Your task to perform on an android device: Is it going to rain today? Image 0: 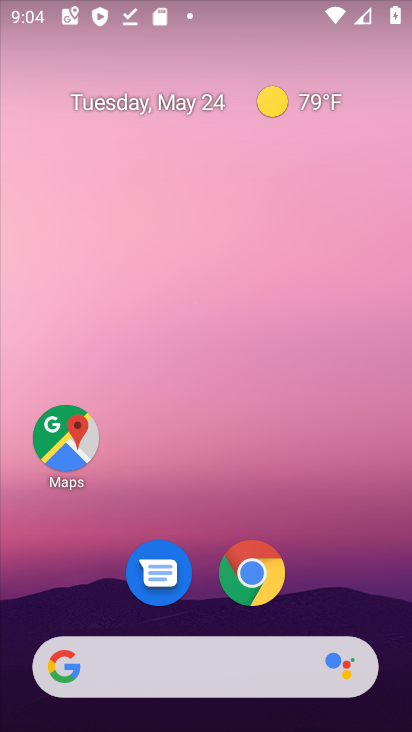
Step 0: drag from (26, 189) to (411, 511)
Your task to perform on an android device: Is it going to rain today? Image 1: 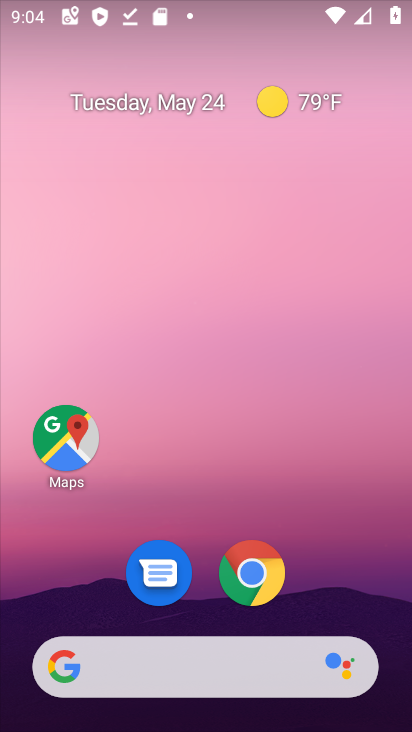
Step 1: drag from (44, 316) to (392, 374)
Your task to perform on an android device: Is it going to rain today? Image 2: 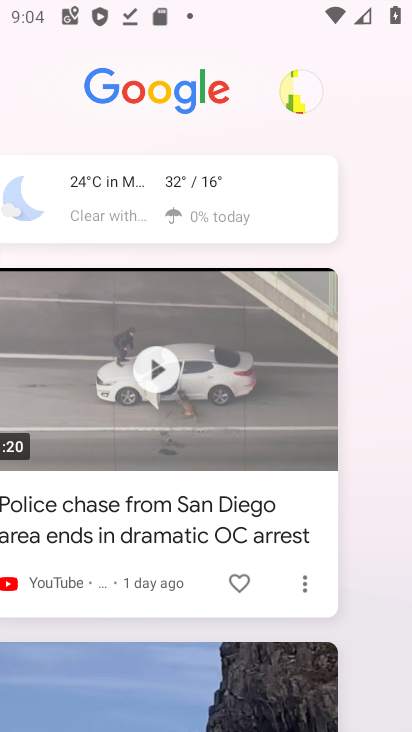
Step 2: drag from (0, 199) to (303, 283)
Your task to perform on an android device: Is it going to rain today? Image 3: 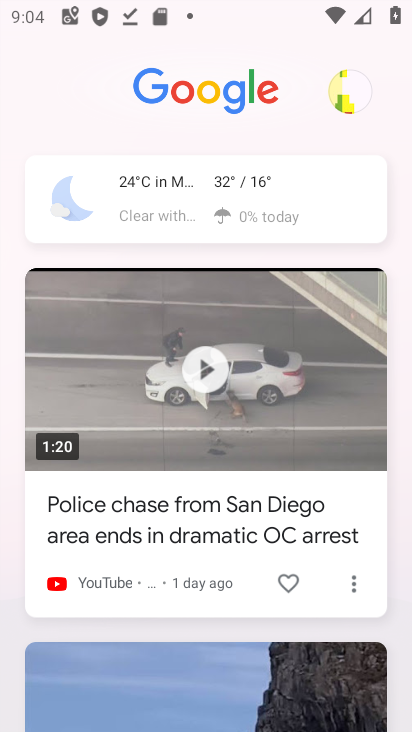
Step 3: click (157, 198)
Your task to perform on an android device: Is it going to rain today? Image 4: 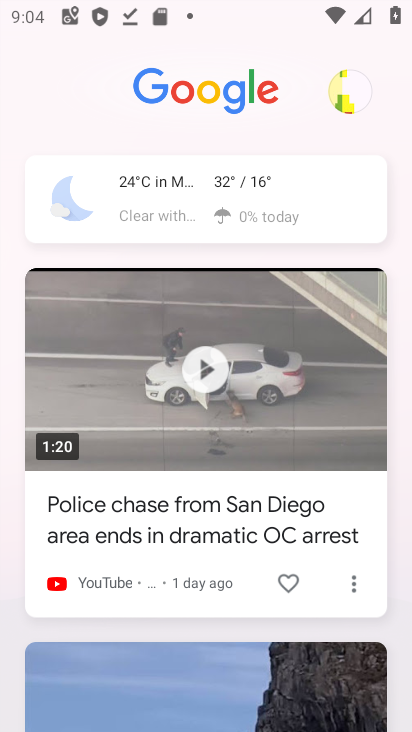
Step 4: click (159, 199)
Your task to perform on an android device: Is it going to rain today? Image 5: 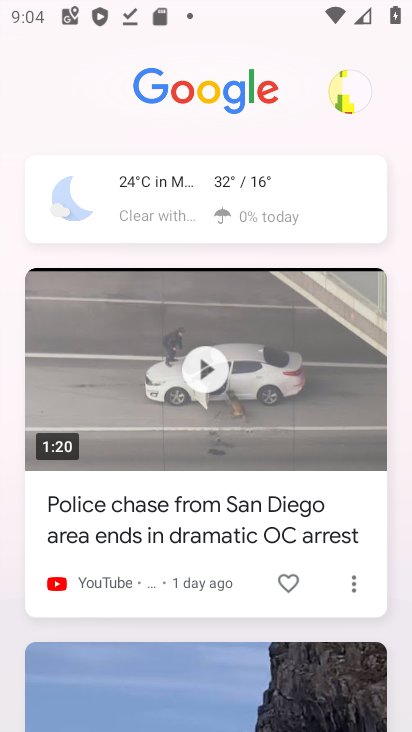
Step 5: click (163, 200)
Your task to perform on an android device: Is it going to rain today? Image 6: 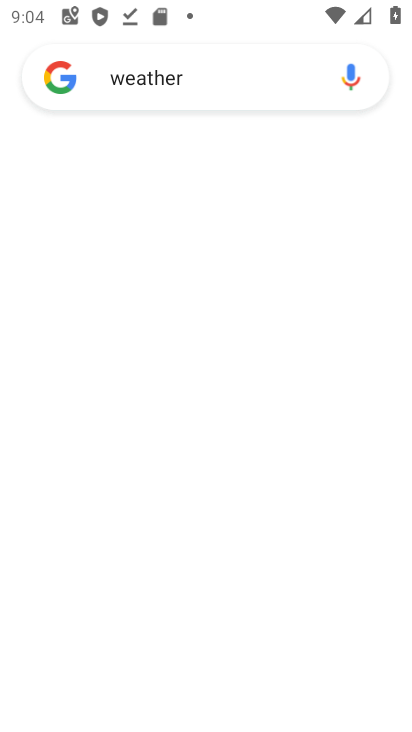
Step 6: click (163, 199)
Your task to perform on an android device: Is it going to rain today? Image 7: 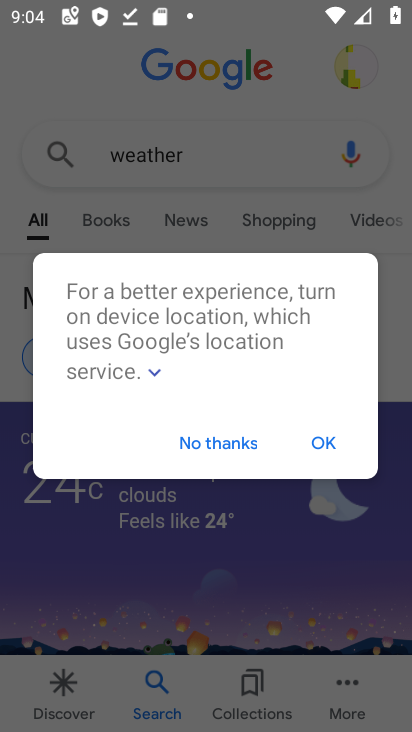
Step 7: click (212, 445)
Your task to perform on an android device: Is it going to rain today? Image 8: 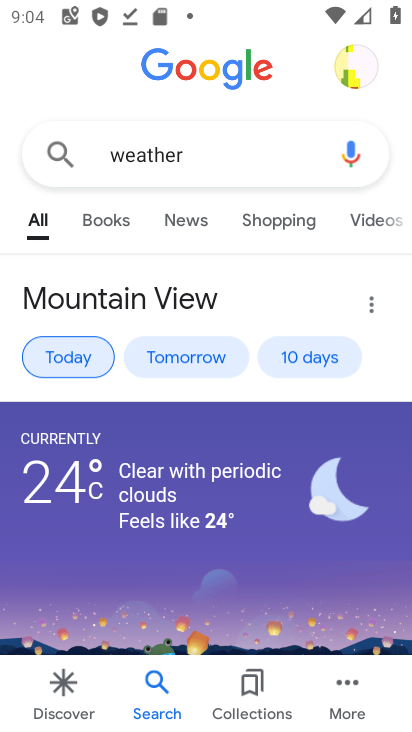
Step 8: task complete